Your task to perform on an android device: Open internet settings Image 0: 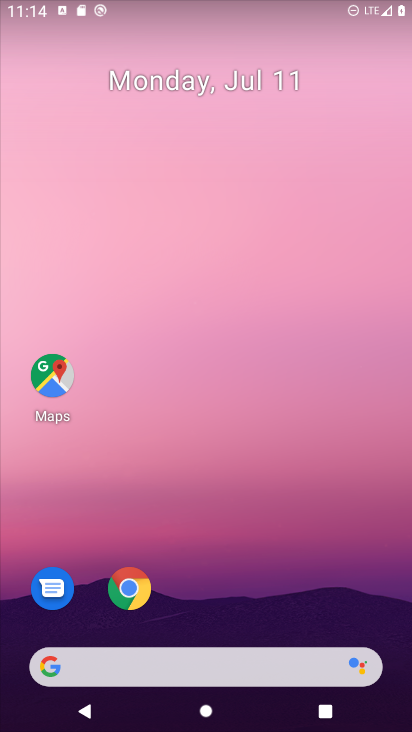
Step 0: drag from (208, 171) to (186, 55)
Your task to perform on an android device: Open internet settings Image 1: 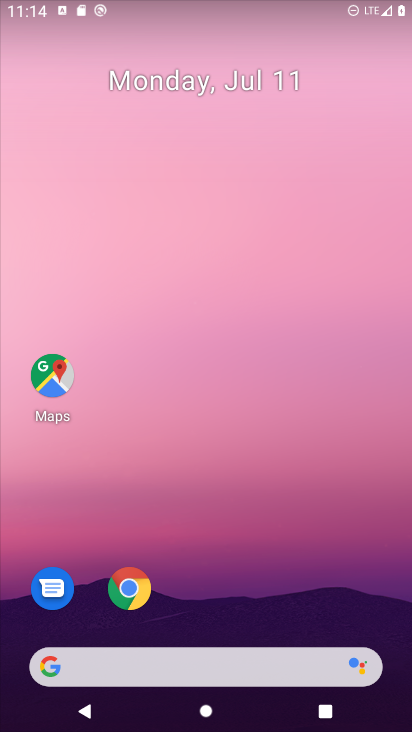
Step 1: drag from (403, 662) to (231, 27)
Your task to perform on an android device: Open internet settings Image 2: 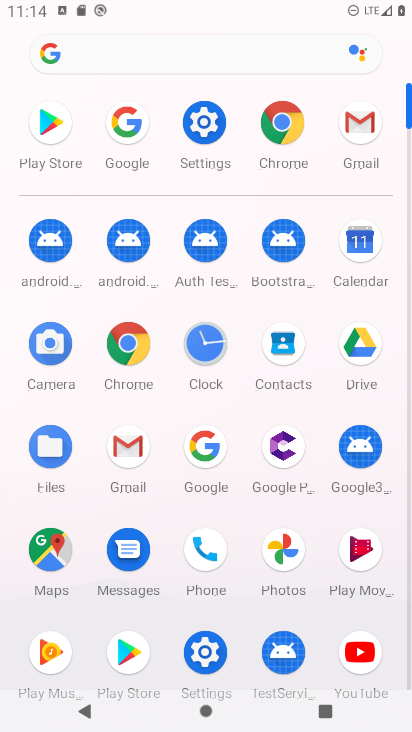
Step 2: click (204, 105)
Your task to perform on an android device: Open internet settings Image 3: 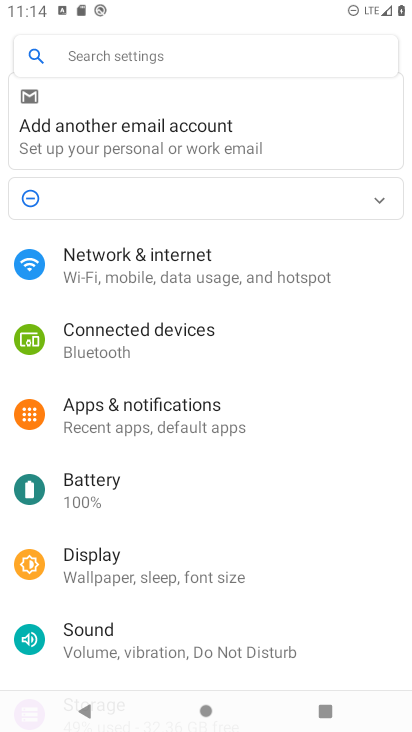
Step 3: click (111, 258)
Your task to perform on an android device: Open internet settings Image 4: 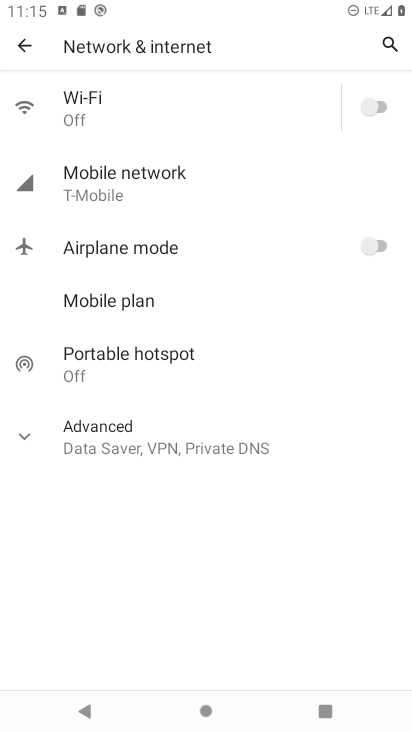
Step 4: task complete